Your task to perform on an android device: turn pop-ups off in chrome Image 0: 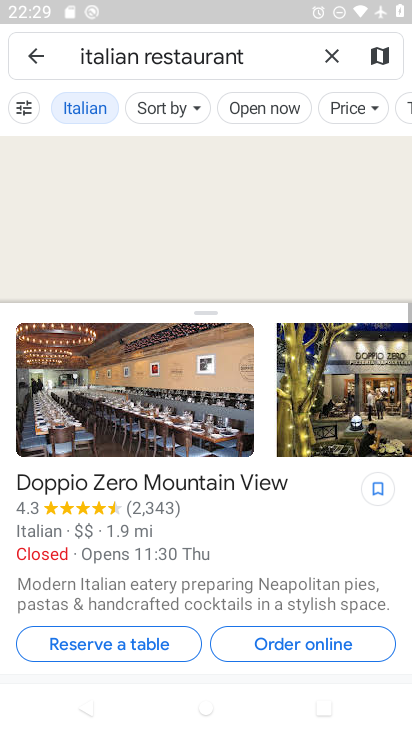
Step 0: press home button
Your task to perform on an android device: turn pop-ups off in chrome Image 1: 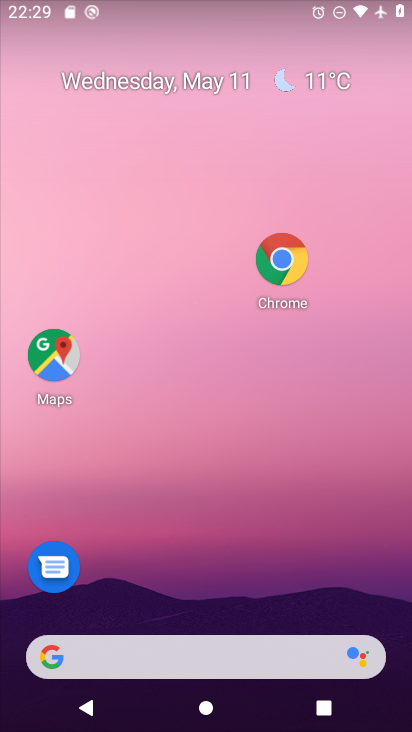
Step 1: drag from (132, 651) to (285, 208)
Your task to perform on an android device: turn pop-ups off in chrome Image 2: 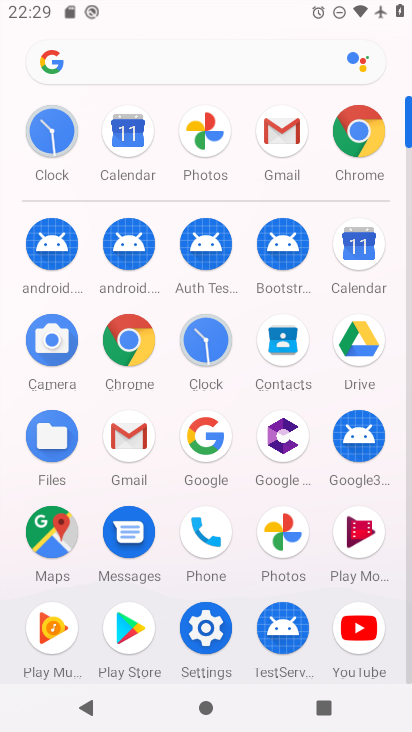
Step 2: click (368, 151)
Your task to perform on an android device: turn pop-ups off in chrome Image 3: 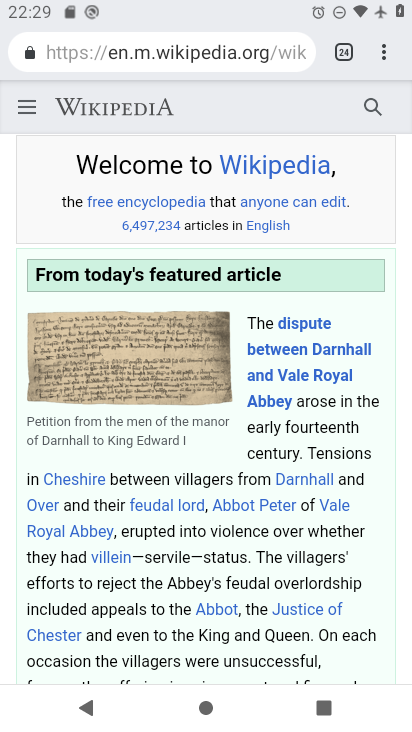
Step 3: drag from (384, 51) to (214, 619)
Your task to perform on an android device: turn pop-ups off in chrome Image 4: 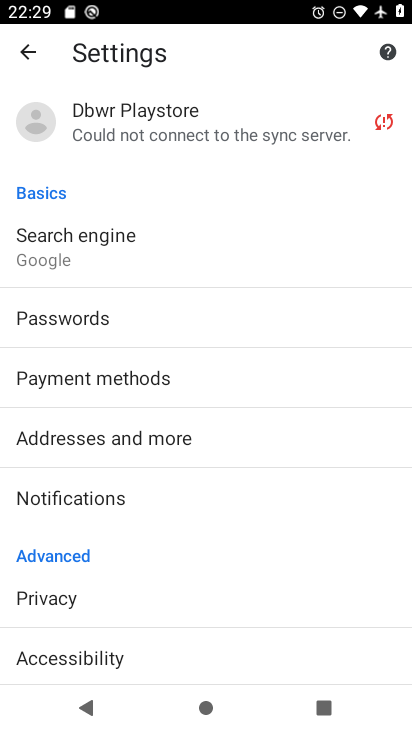
Step 4: drag from (138, 609) to (299, 255)
Your task to perform on an android device: turn pop-ups off in chrome Image 5: 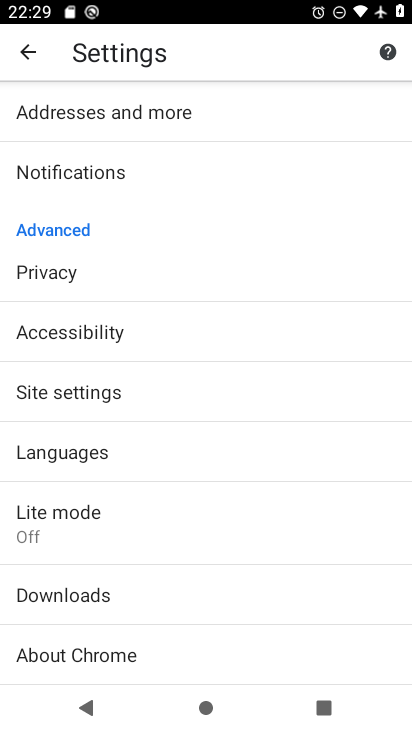
Step 5: click (102, 390)
Your task to perform on an android device: turn pop-ups off in chrome Image 6: 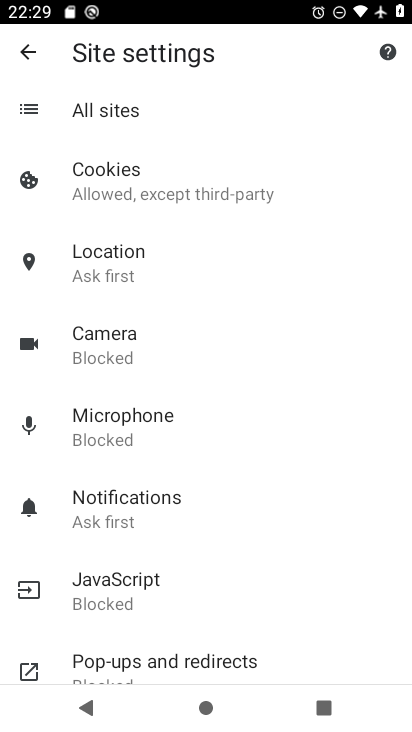
Step 6: drag from (171, 571) to (304, 334)
Your task to perform on an android device: turn pop-ups off in chrome Image 7: 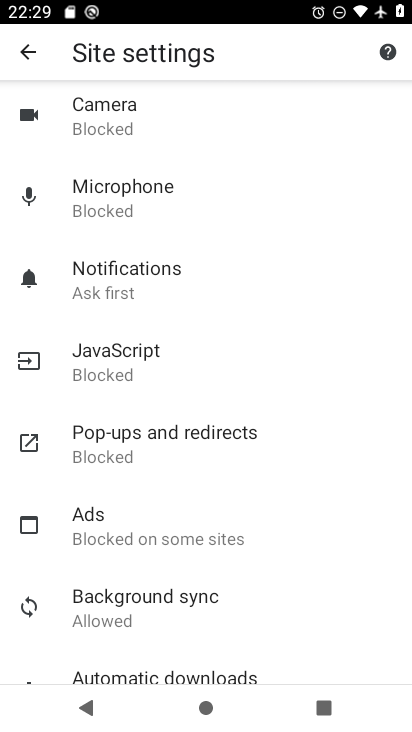
Step 7: click (196, 436)
Your task to perform on an android device: turn pop-ups off in chrome Image 8: 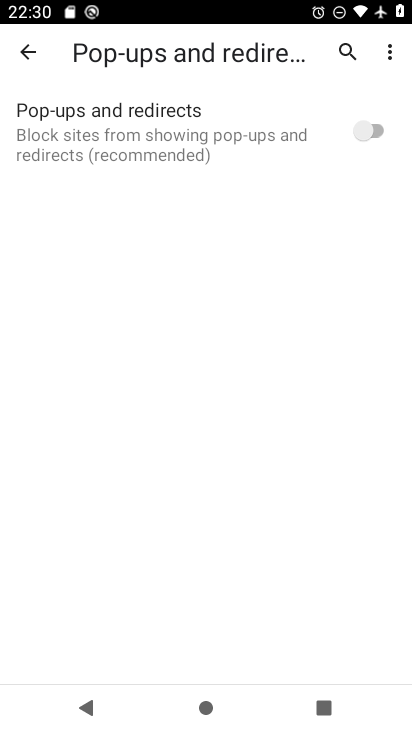
Step 8: task complete